Your task to perform on an android device: Go to CNN.com Image 0: 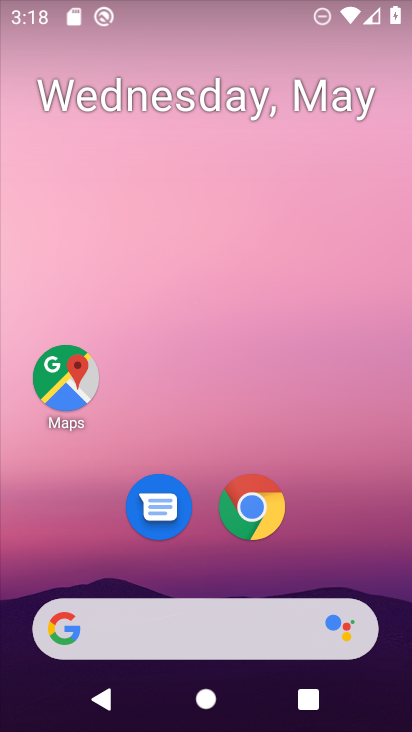
Step 0: click (253, 521)
Your task to perform on an android device: Go to CNN.com Image 1: 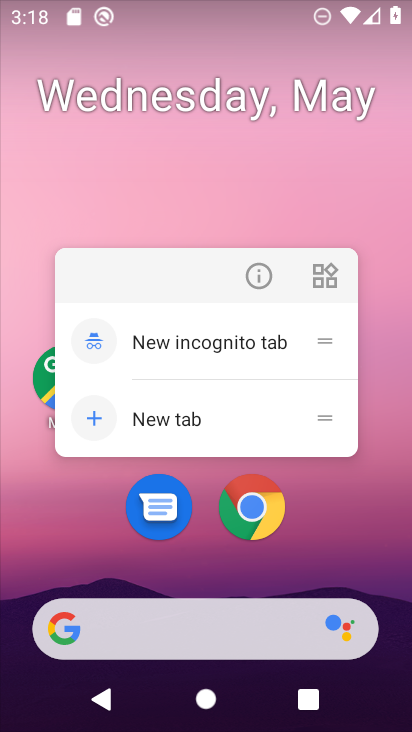
Step 1: click (253, 519)
Your task to perform on an android device: Go to CNN.com Image 2: 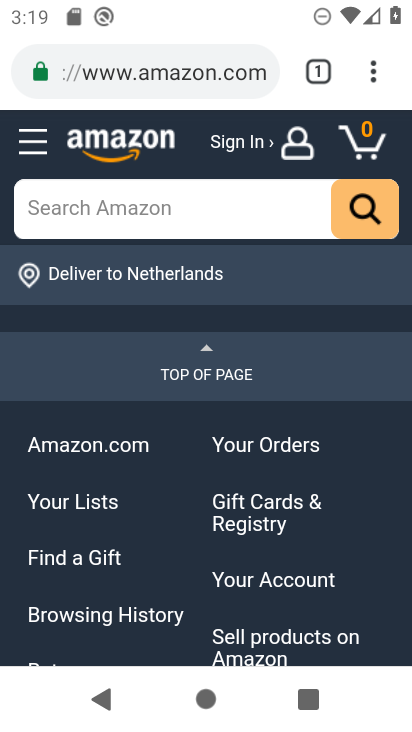
Step 2: click (195, 67)
Your task to perform on an android device: Go to CNN.com Image 3: 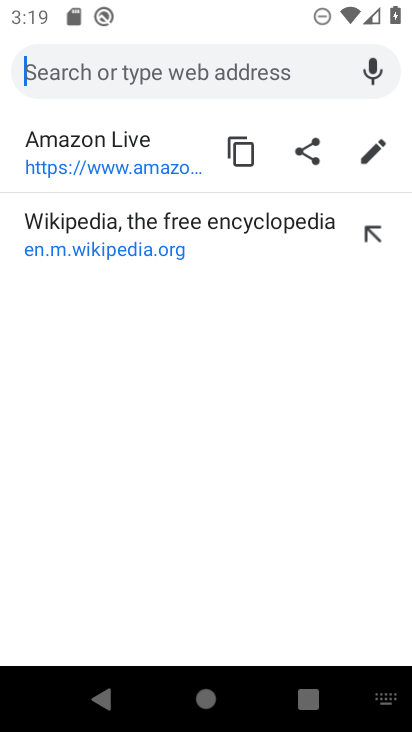
Step 3: type "CNN.com"
Your task to perform on an android device: Go to CNN.com Image 4: 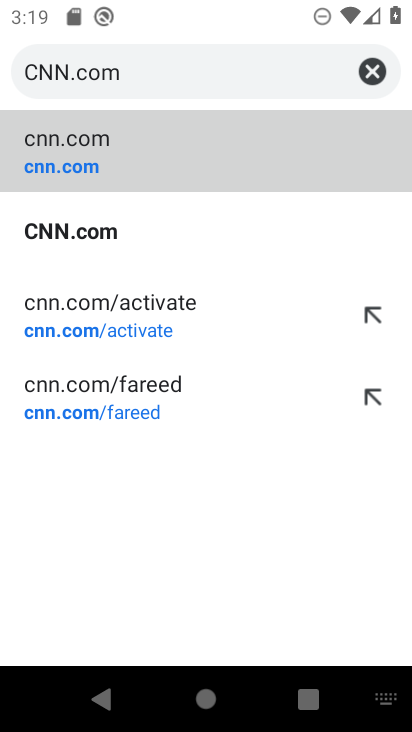
Step 4: click (106, 235)
Your task to perform on an android device: Go to CNN.com Image 5: 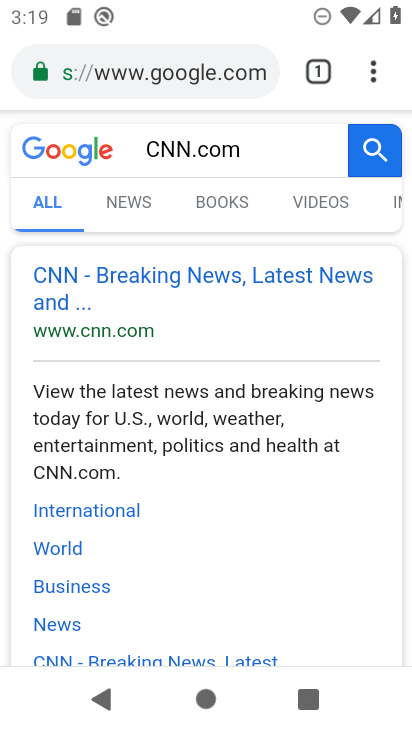
Step 5: click (175, 307)
Your task to perform on an android device: Go to CNN.com Image 6: 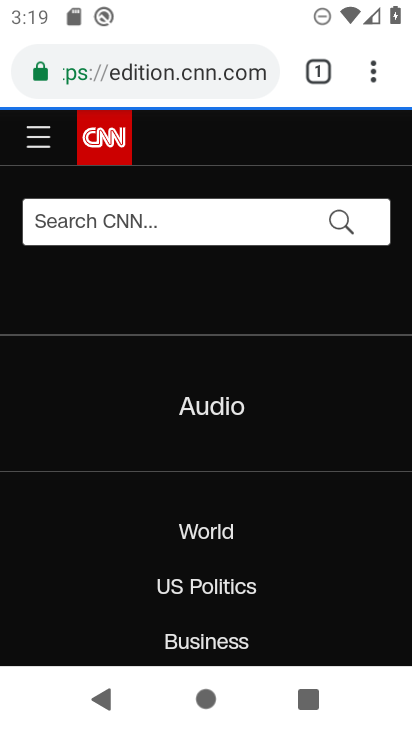
Step 6: task complete